Your task to perform on an android device: change your default location settings in chrome Image 0: 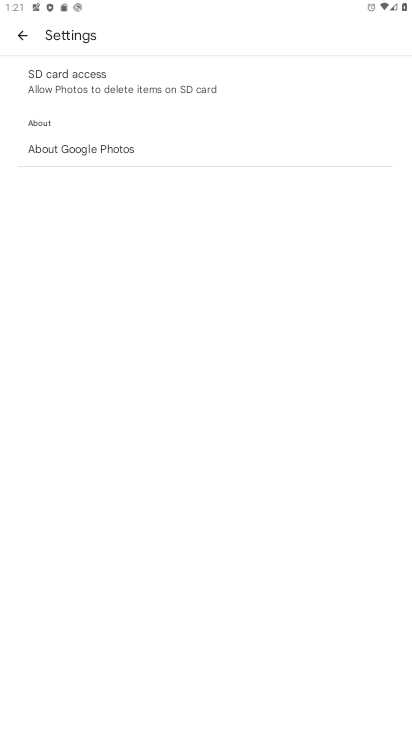
Step 0: press home button
Your task to perform on an android device: change your default location settings in chrome Image 1: 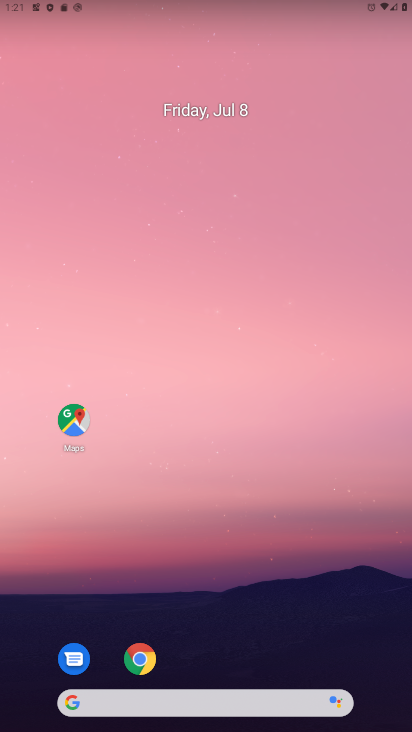
Step 1: click (143, 660)
Your task to perform on an android device: change your default location settings in chrome Image 2: 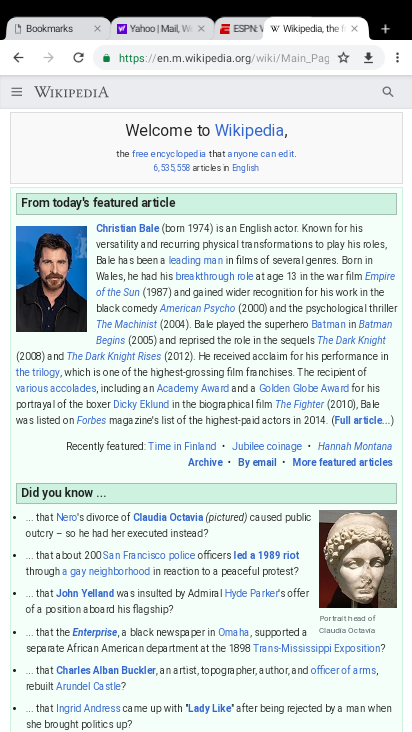
Step 2: click (394, 57)
Your task to perform on an android device: change your default location settings in chrome Image 3: 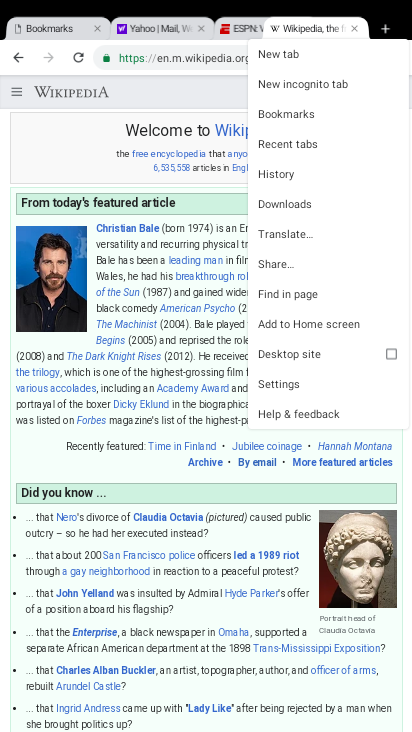
Step 3: click (290, 382)
Your task to perform on an android device: change your default location settings in chrome Image 4: 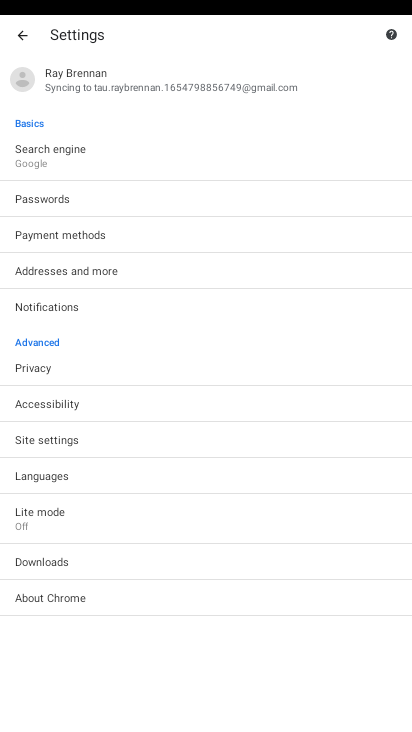
Step 4: click (52, 443)
Your task to perform on an android device: change your default location settings in chrome Image 5: 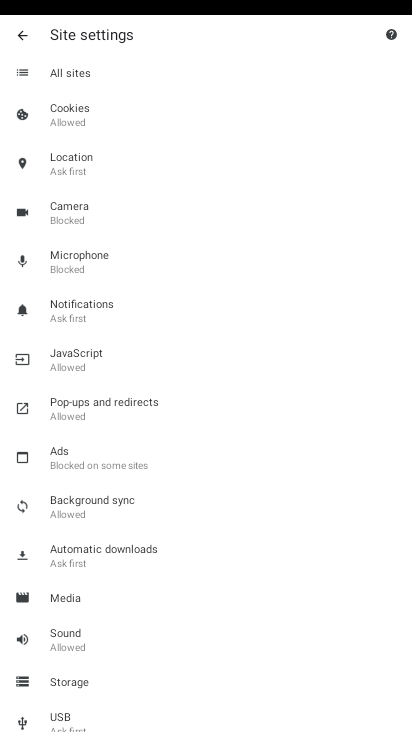
Step 5: click (66, 156)
Your task to perform on an android device: change your default location settings in chrome Image 6: 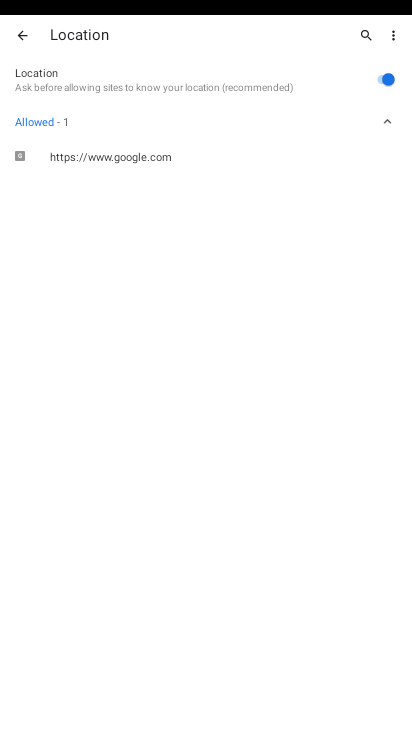
Step 6: click (385, 76)
Your task to perform on an android device: change your default location settings in chrome Image 7: 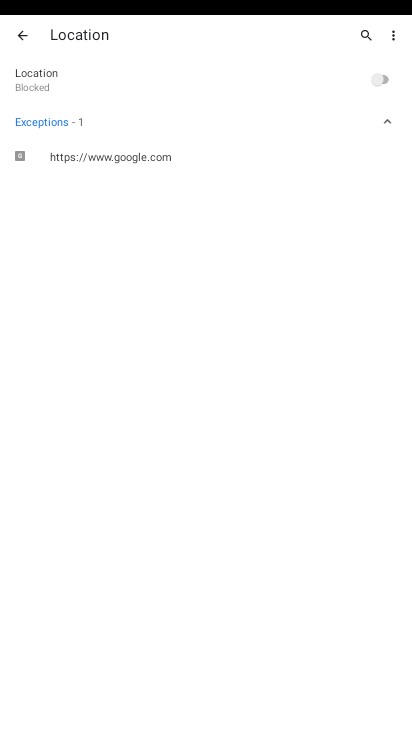
Step 7: task complete